Your task to perform on an android device: Open Maps and search for coffee Image 0: 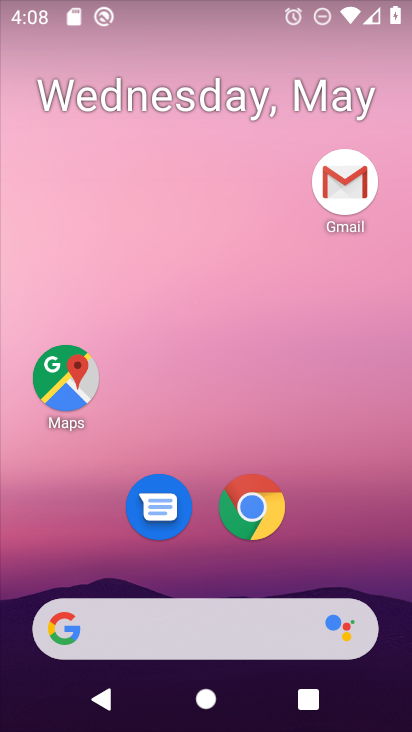
Step 0: click (70, 378)
Your task to perform on an android device: Open Maps and search for coffee Image 1: 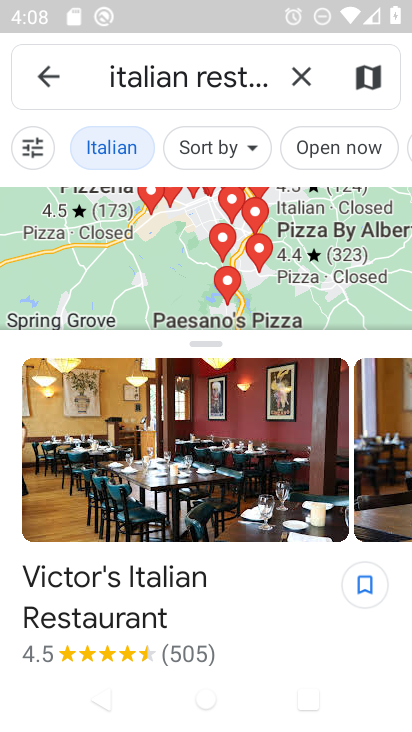
Step 1: click (305, 69)
Your task to perform on an android device: Open Maps and search for coffee Image 2: 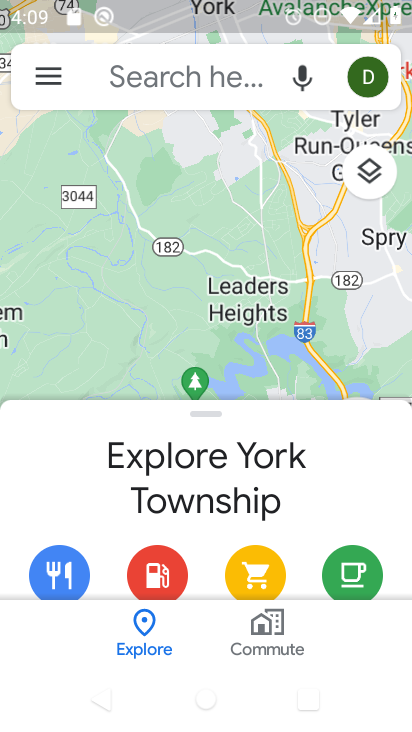
Step 2: click (104, 77)
Your task to perform on an android device: Open Maps and search for coffee Image 3: 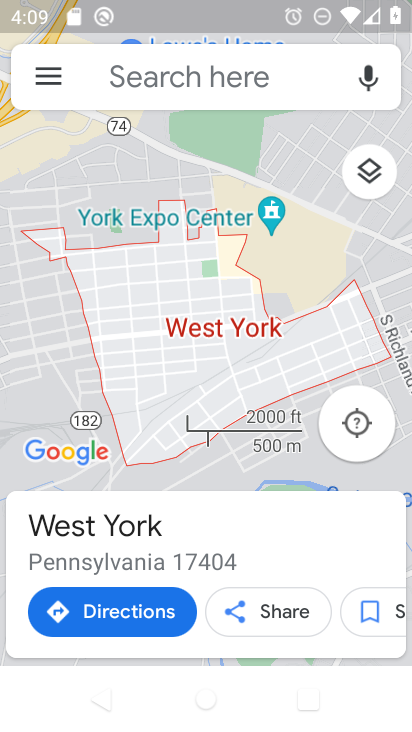
Step 3: click (194, 70)
Your task to perform on an android device: Open Maps and search for coffee Image 4: 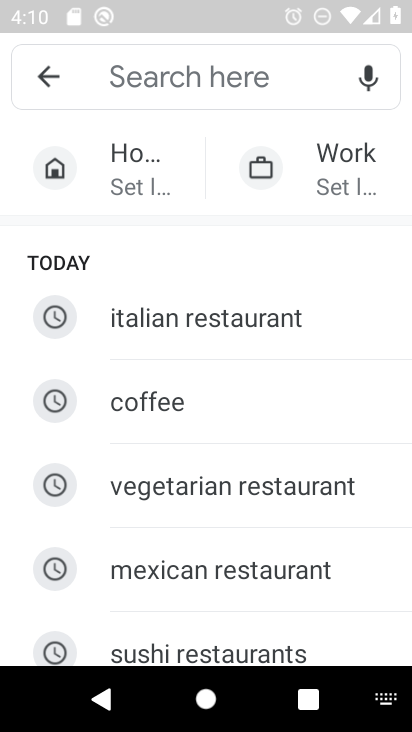
Step 4: type "coffee"
Your task to perform on an android device: Open Maps and search for coffee Image 5: 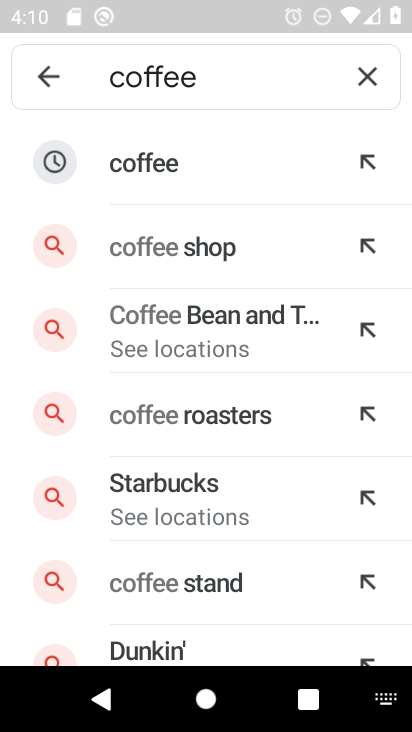
Step 5: click (260, 179)
Your task to perform on an android device: Open Maps and search for coffee Image 6: 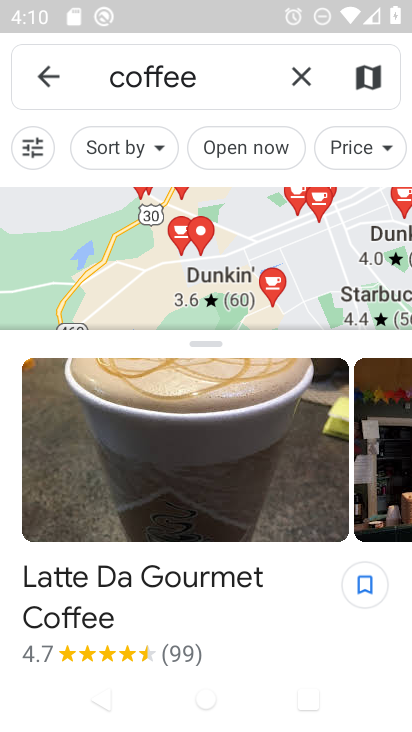
Step 6: task complete